Your task to perform on an android device: turn off wifi Image 0: 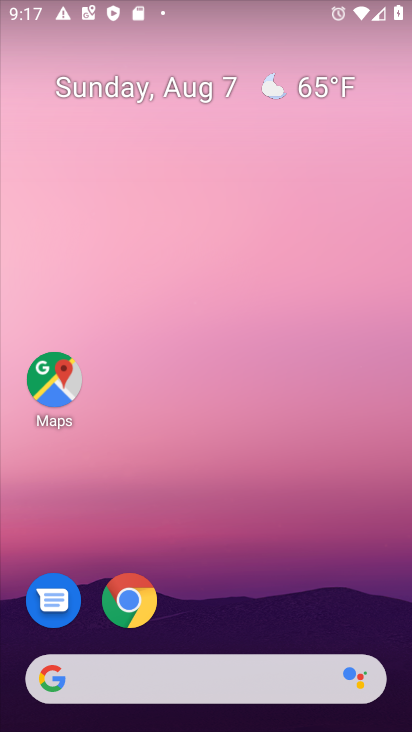
Step 0: drag from (222, 497) to (222, 258)
Your task to perform on an android device: turn off wifi Image 1: 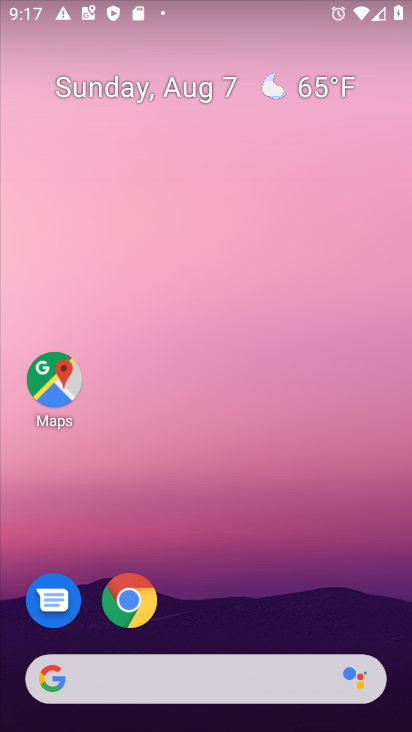
Step 1: drag from (195, 552) to (195, 100)
Your task to perform on an android device: turn off wifi Image 2: 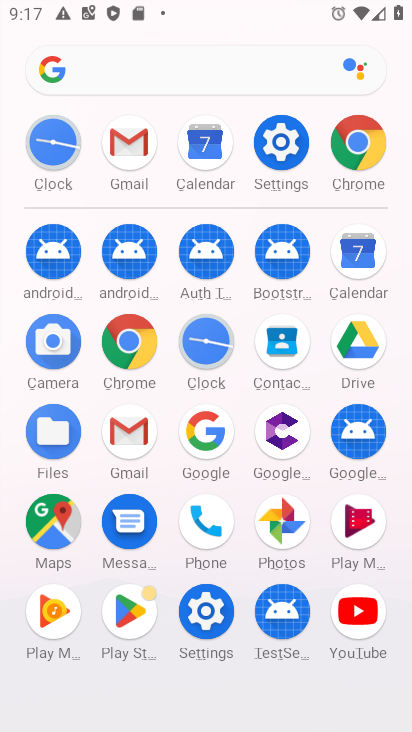
Step 2: click (277, 154)
Your task to perform on an android device: turn off wifi Image 3: 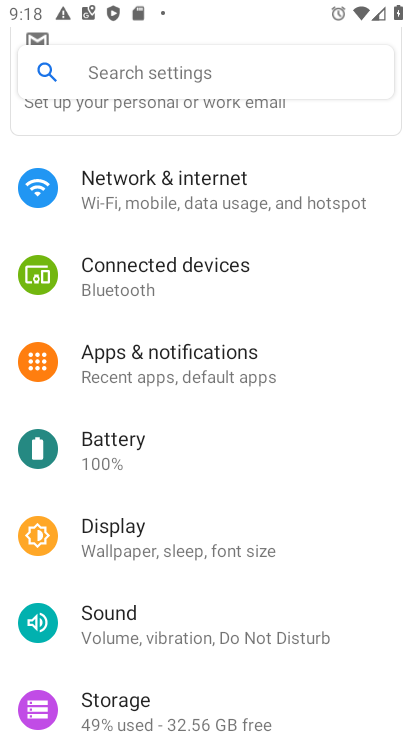
Step 3: click (134, 189)
Your task to perform on an android device: turn off wifi Image 4: 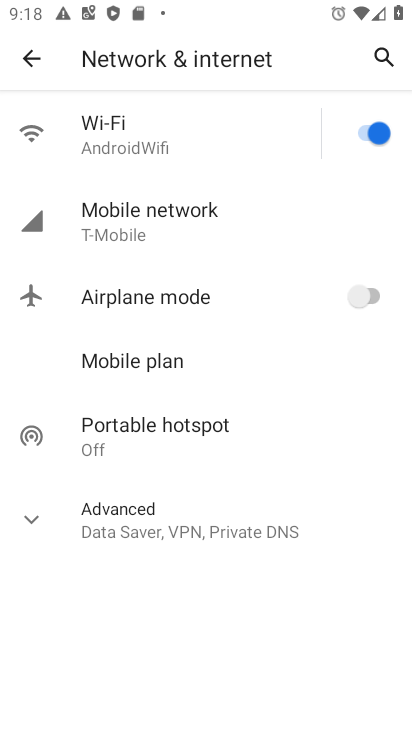
Step 4: click (364, 124)
Your task to perform on an android device: turn off wifi Image 5: 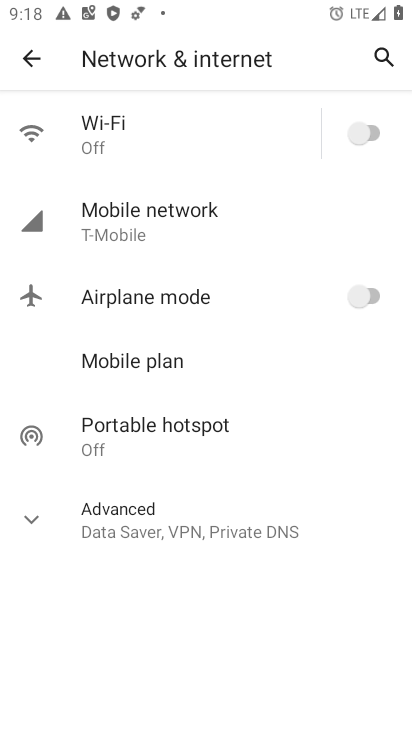
Step 5: task complete